Your task to perform on an android device: Open settings Image 0: 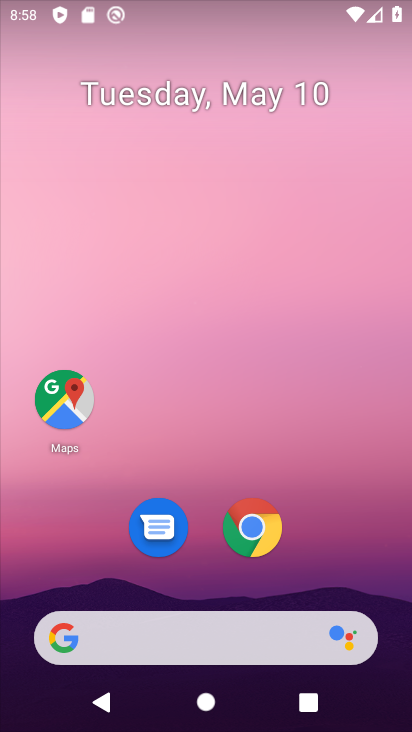
Step 0: drag from (206, 587) to (197, 11)
Your task to perform on an android device: Open settings Image 1: 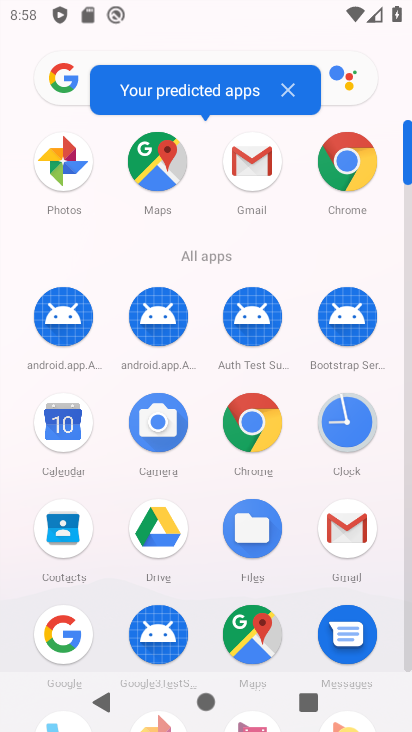
Step 1: drag from (211, 607) to (211, 76)
Your task to perform on an android device: Open settings Image 2: 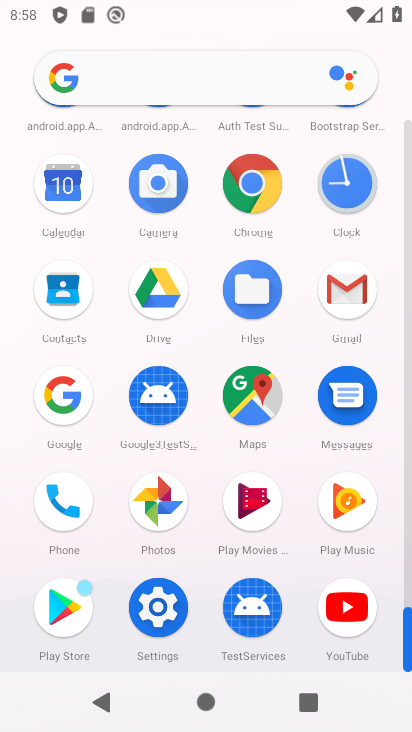
Step 2: click (170, 610)
Your task to perform on an android device: Open settings Image 3: 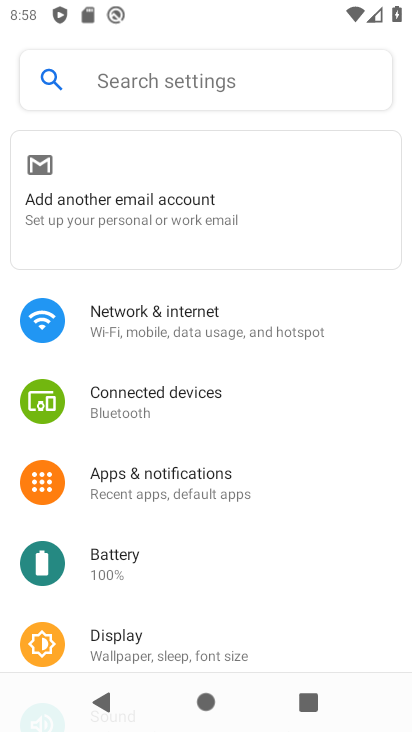
Step 3: task complete